Your task to perform on an android device: Open Youtube and go to the subscriptions tab Image 0: 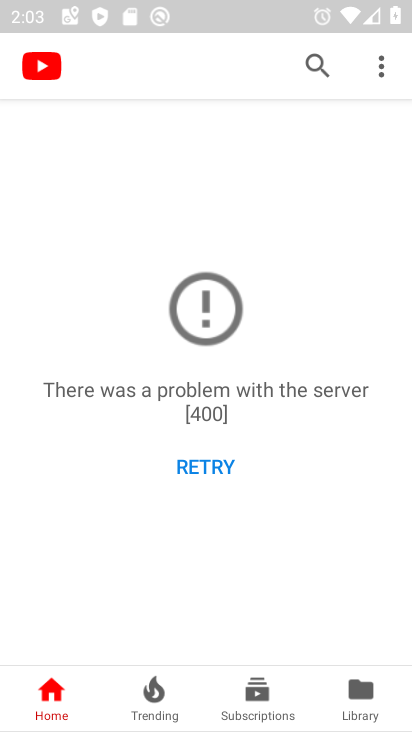
Step 0: click (275, 703)
Your task to perform on an android device: Open Youtube and go to the subscriptions tab Image 1: 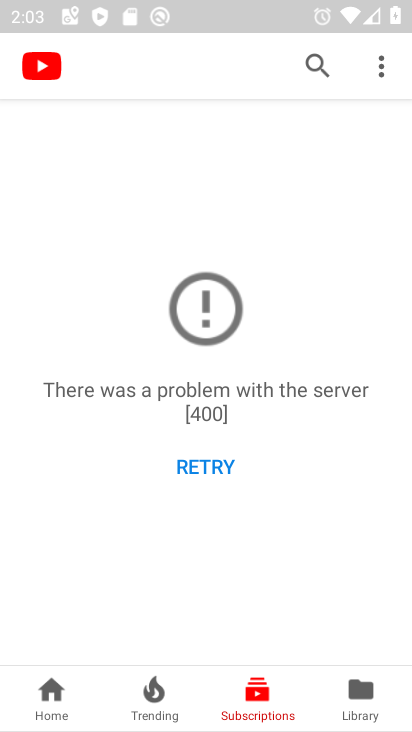
Step 1: task complete